Your task to perform on an android device: toggle show notifications on the lock screen Image 0: 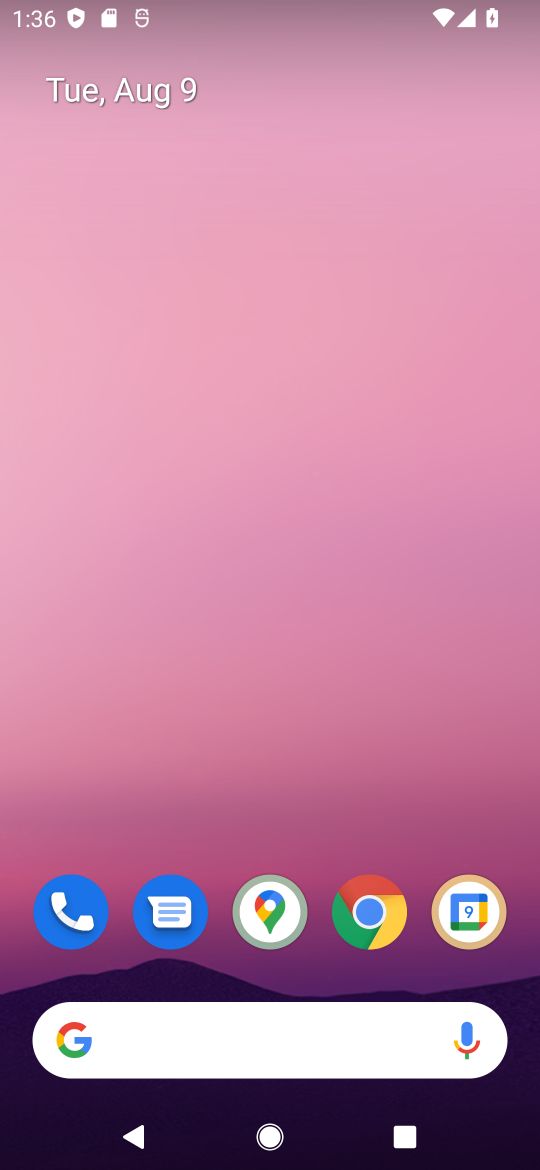
Step 0: drag from (276, 823) to (293, 14)
Your task to perform on an android device: toggle show notifications on the lock screen Image 1: 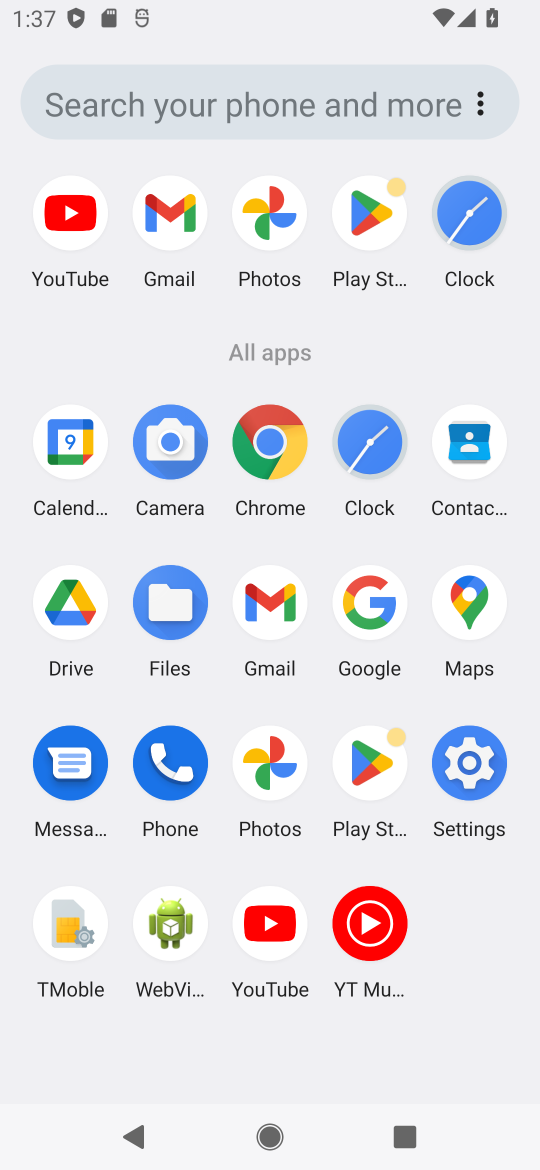
Step 1: click (468, 750)
Your task to perform on an android device: toggle show notifications on the lock screen Image 2: 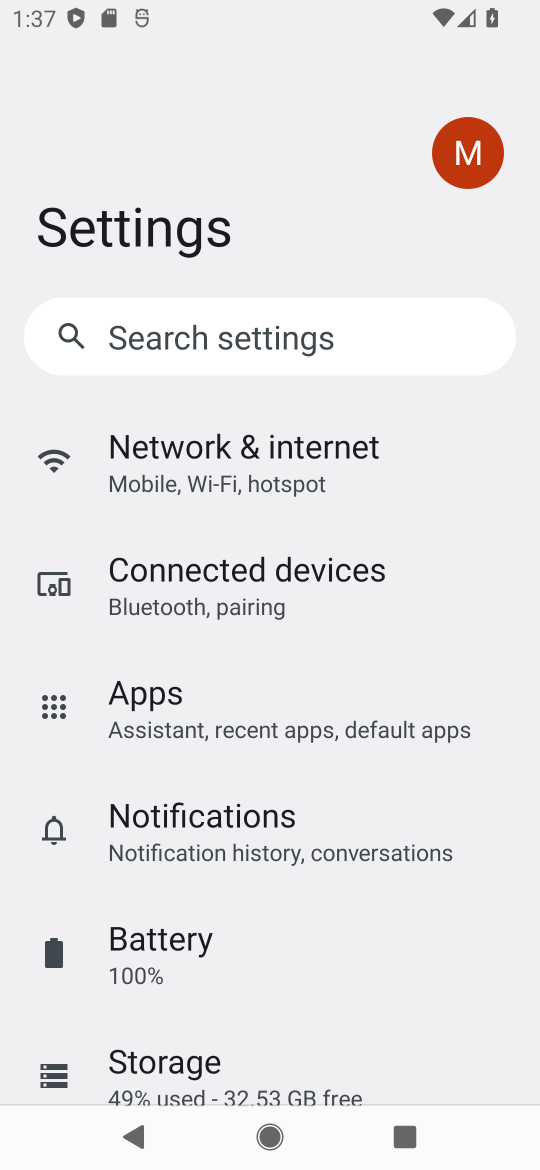
Step 2: click (224, 820)
Your task to perform on an android device: toggle show notifications on the lock screen Image 3: 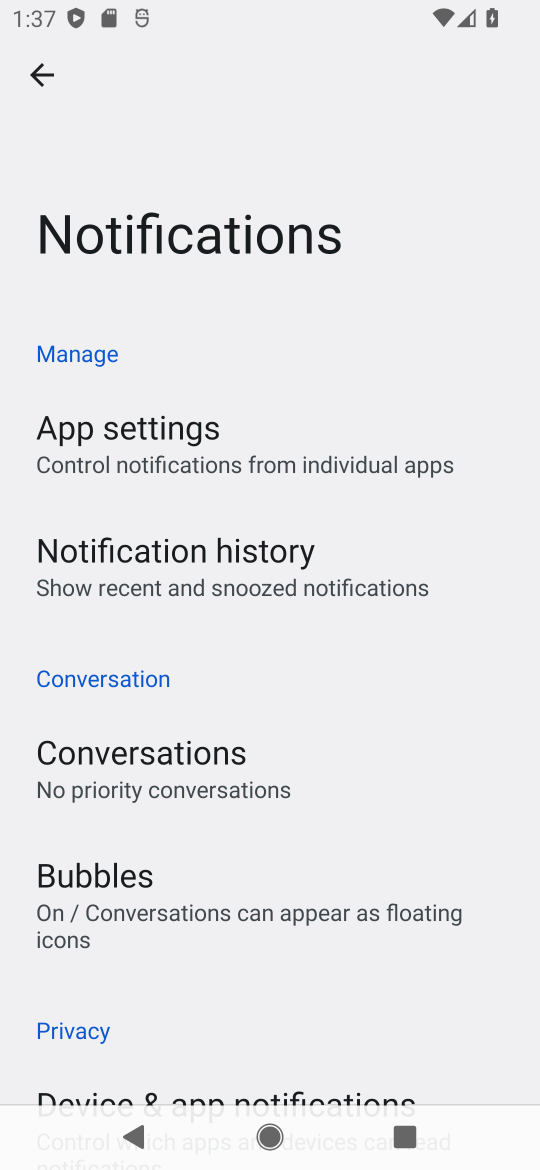
Step 3: drag from (251, 806) to (226, 362)
Your task to perform on an android device: toggle show notifications on the lock screen Image 4: 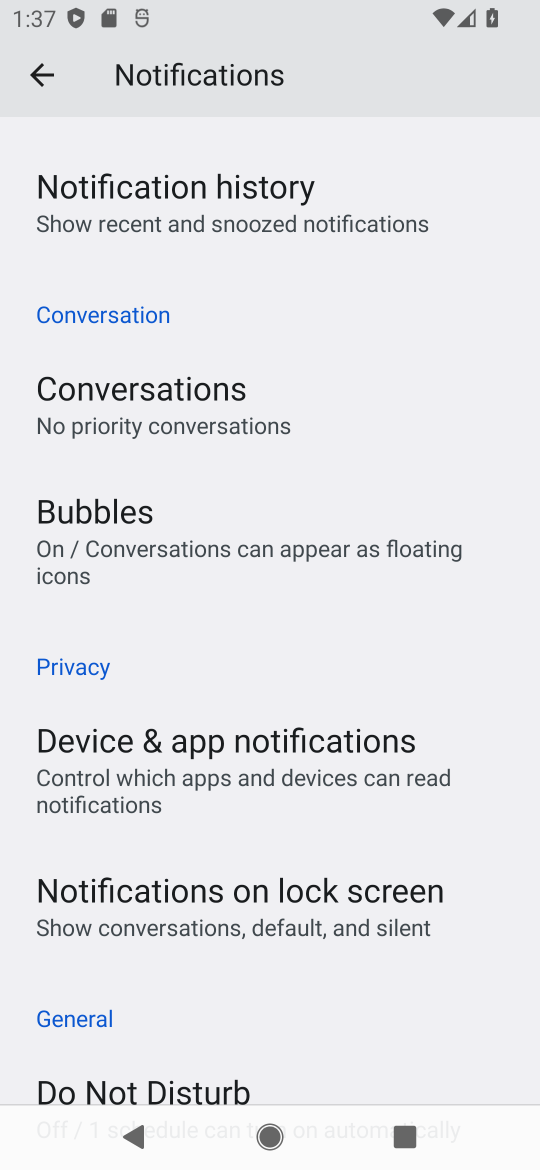
Step 4: click (270, 884)
Your task to perform on an android device: toggle show notifications on the lock screen Image 5: 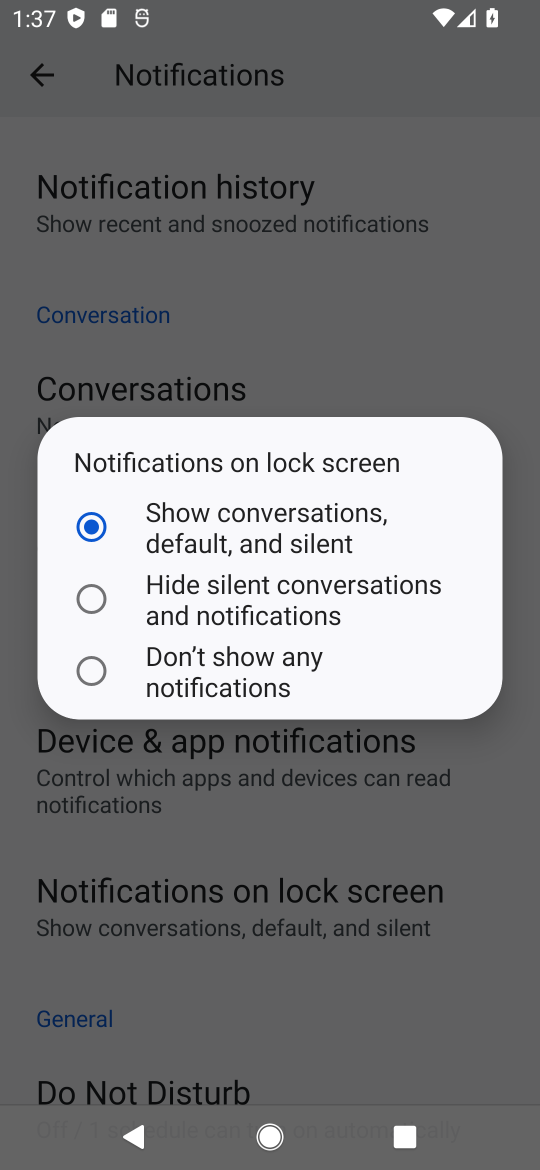
Step 5: click (87, 663)
Your task to perform on an android device: toggle show notifications on the lock screen Image 6: 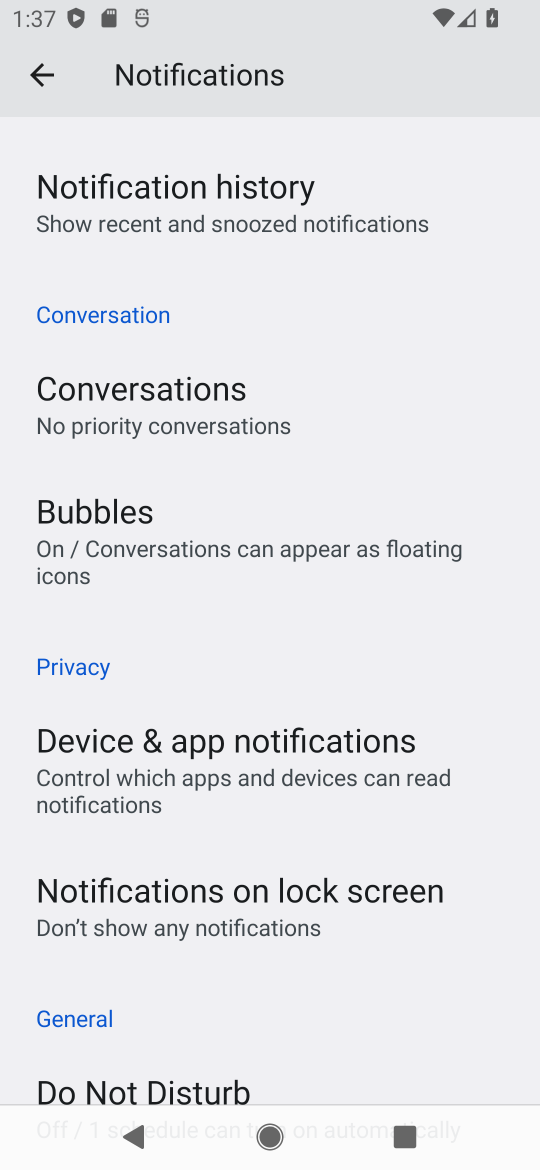
Step 6: task complete